Your task to perform on an android device: View the shopping cart on ebay. Search for acer nitro on ebay, select the first entry, add it to the cart, then select checkout. Image 0: 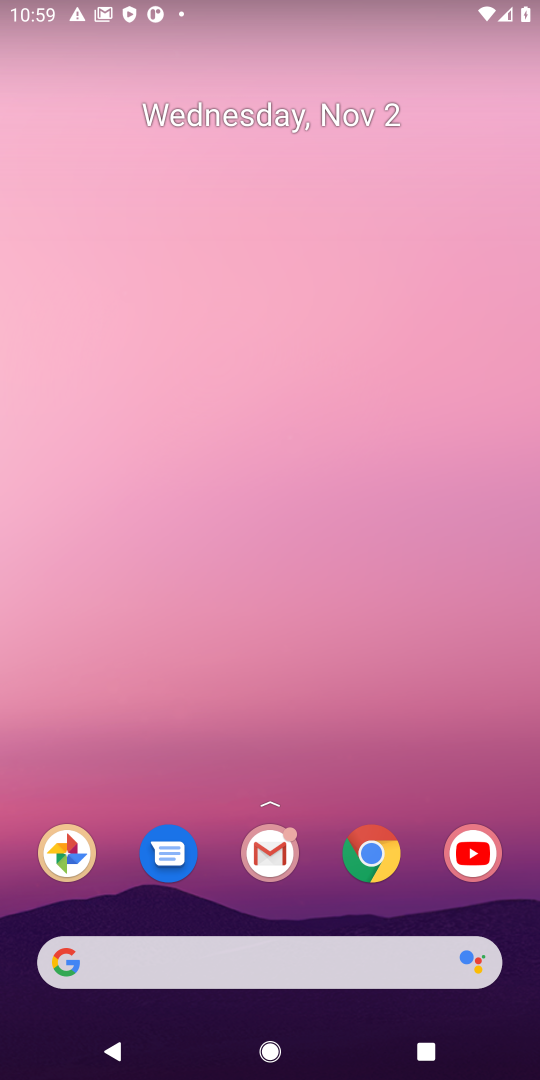
Step 0: click (367, 856)
Your task to perform on an android device: View the shopping cart on ebay. Search for acer nitro on ebay, select the first entry, add it to the cart, then select checkout. Image 1: 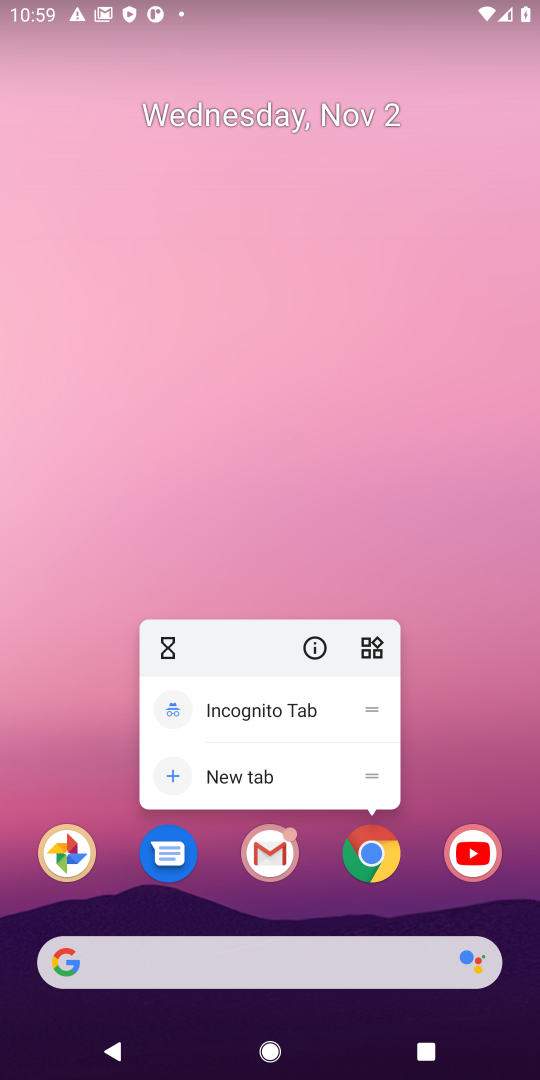
Step 1: click (367, 856)
Your task to perform on an android device: View the shopping cart on ebay. Search for acer nitro on ebay, select the first entry, add it to the cart, then select checkout. Image 2: 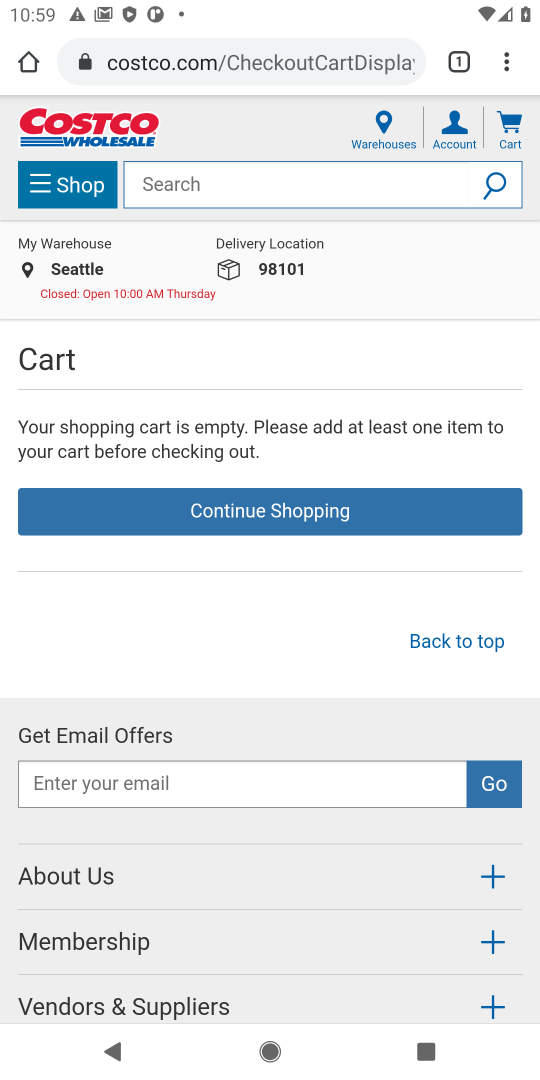
Step 2: click (210, 59)
Your task to perform on an android device: View the shopping cart on ebay. Search for acer nitro on ebay, select the first entry, add it to the cart, then select checkout. Image 3: 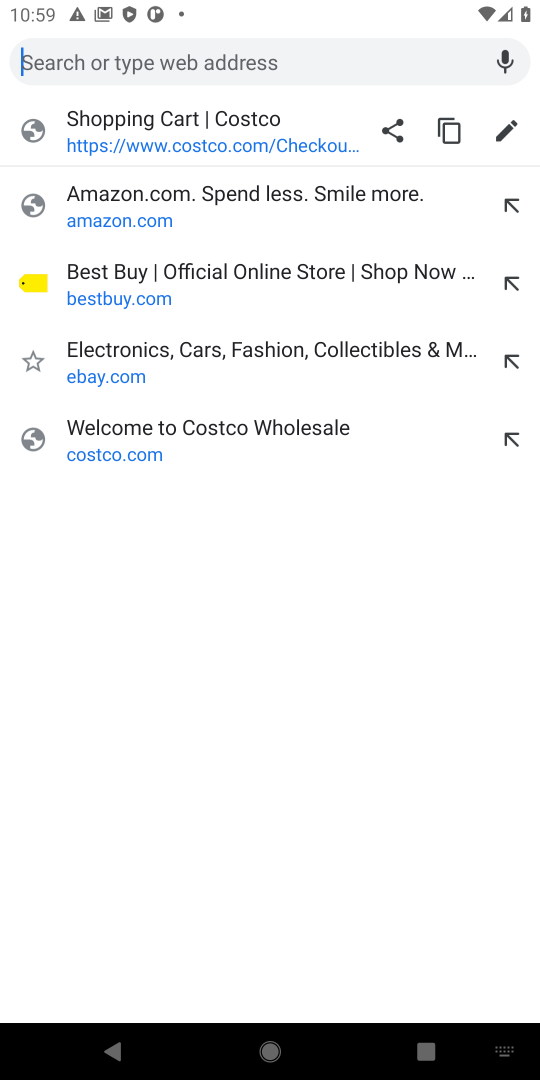
Step 3: type "ebay"
Your task to perform on an android device: View the shopping cart on ebay. Search for acer nitro on ebay, select the first entry, add it to the cart, then select checkout. Image 4: 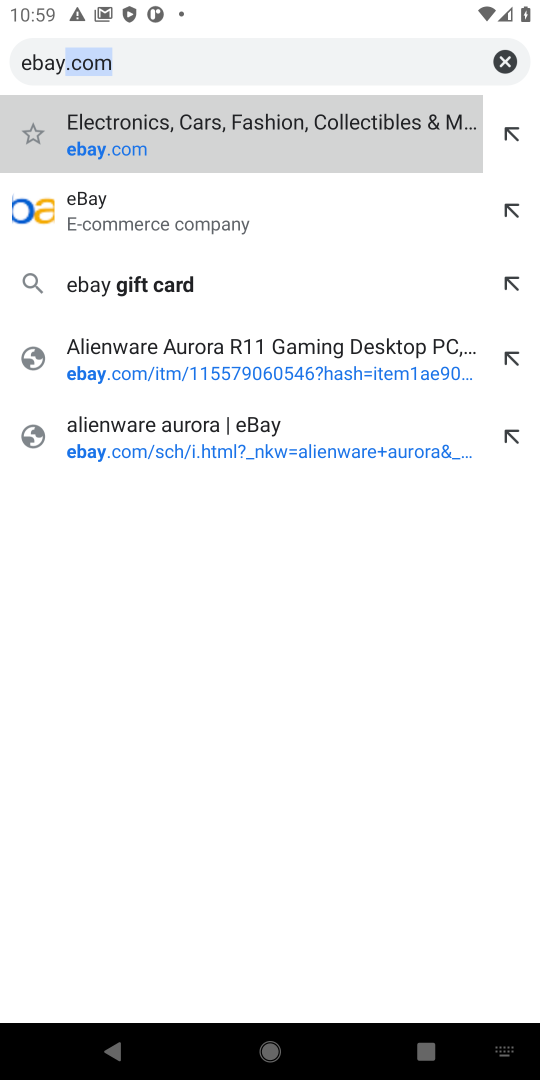
Step 4: press enter
Your task to perform on an android device: View the shopping cart on ebay. Search for acer nitro on ebay, select the first entry, add it to the cart, then select checkout. Image 5: 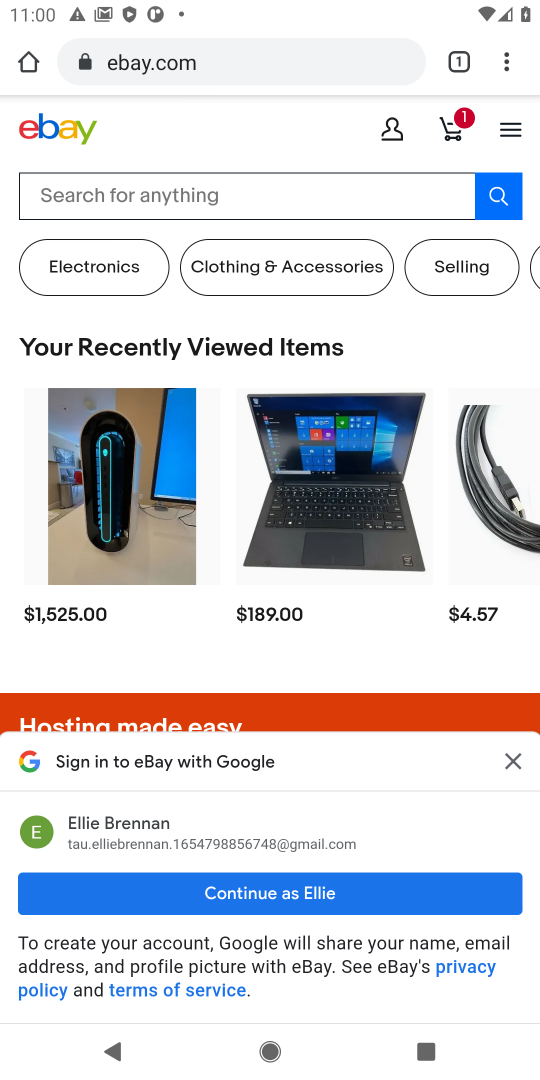
Step 5: click (377, 185)
Your task to perform on an android device: View the shopping cart on ebay. Search for acer nitro on ebay, select the first entry, add it to the cart, then select checkout. Image 6: 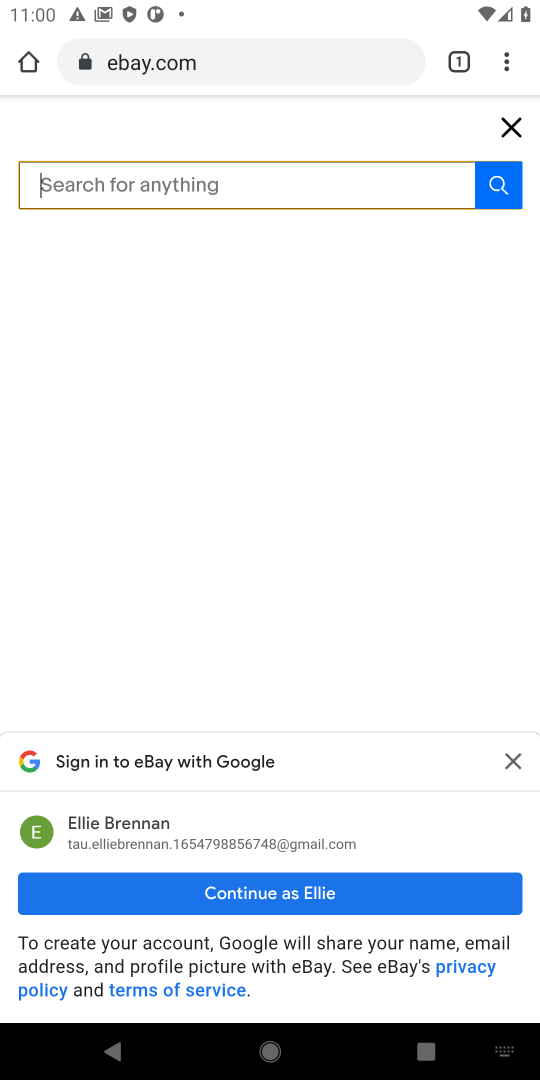
Step 6: type " acer nitro "
Your task to perform on an android device: View the shopping cart on ebay. Search for acer nitro on ebay, select the first entry, add it to the cart, then select checkout. Image 7: 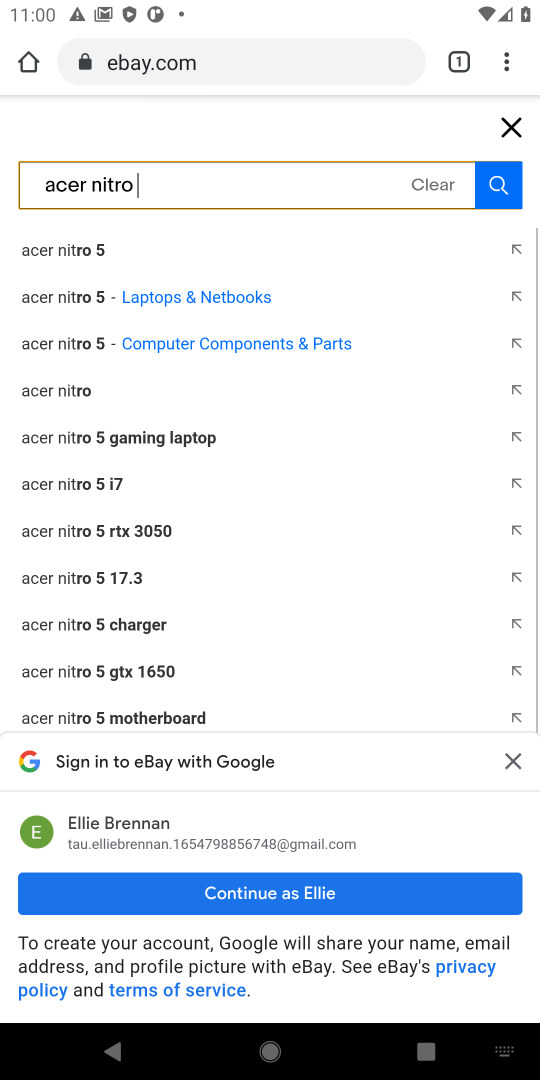
Step 7: press enter
Your task to perform on an android device: View the shopping cart on ebay. Search for acer nitro on ebay, select the first entry, add it to the cart, then select checkout. Image 8: 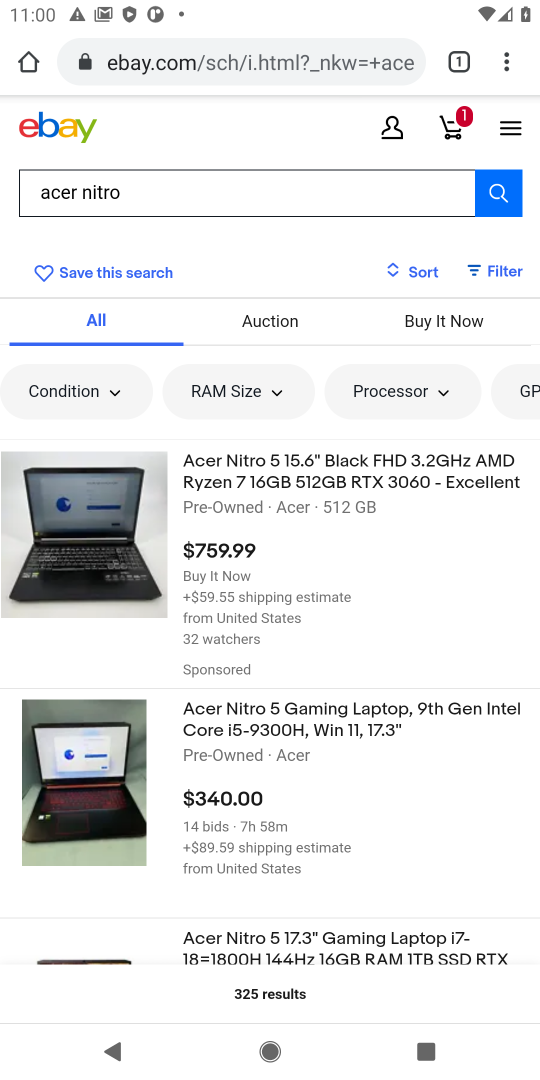
Step 8: click (226, 481)
Your task to perform on an android device: View the shopping cart on ebay. Search for acer nitro on ebay, select the first entry, add it to the cart, then select checkout. Image 9: 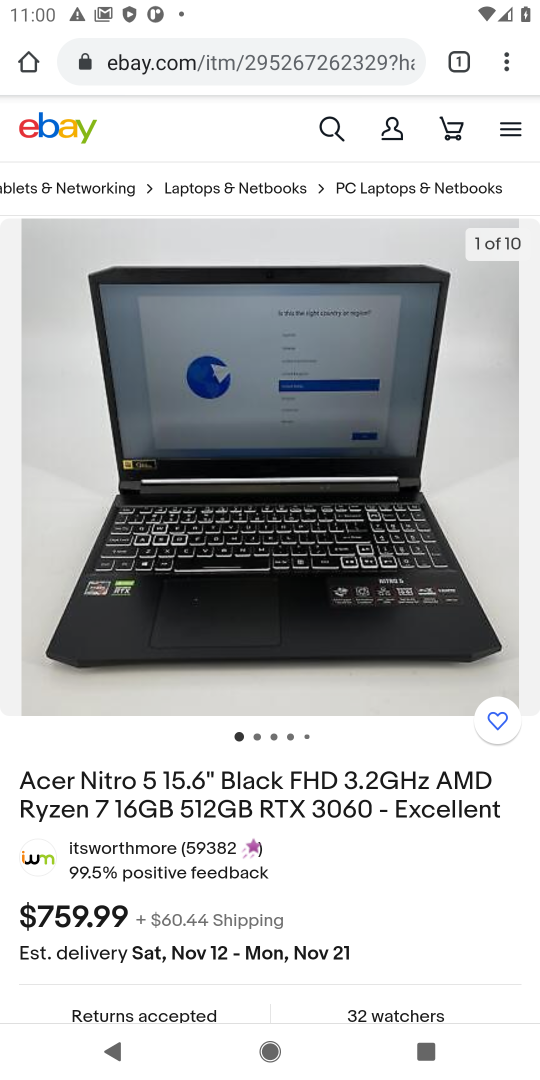
Step 9: drag from (378, 800) to (485, 345)
Your task to perform on an android device: View the shopping cart on ebay. Search for acer nitro on ebay, select the first entry, add it to the cart, then select checkout. Image 10: 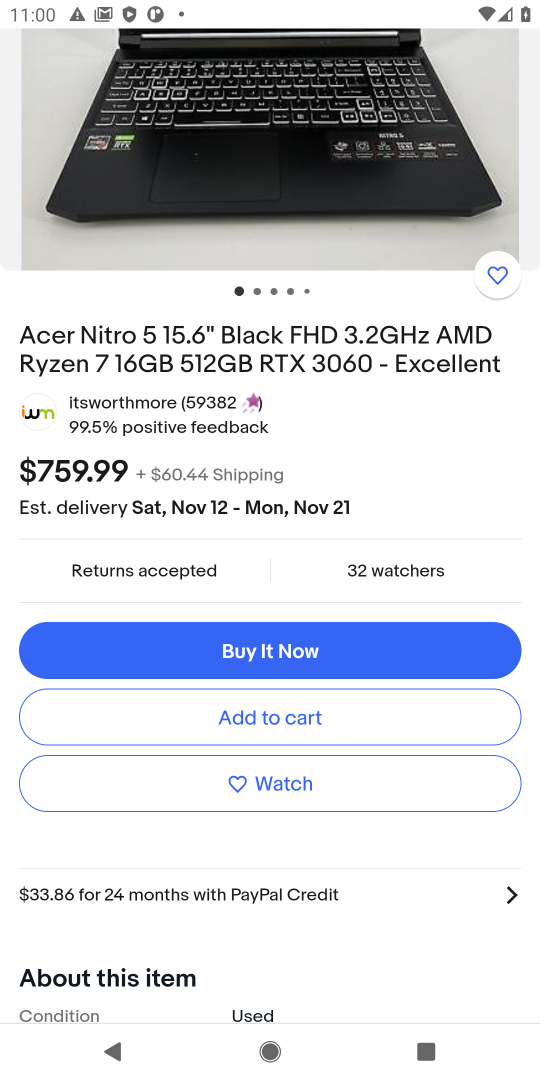
Step 10: click (293, 716)
Your task to perform on an android device: View the shopping cart on ebay. Search for acer nitro on ebay, select the first entry, add it to the cart, then select checkout. Image 11: 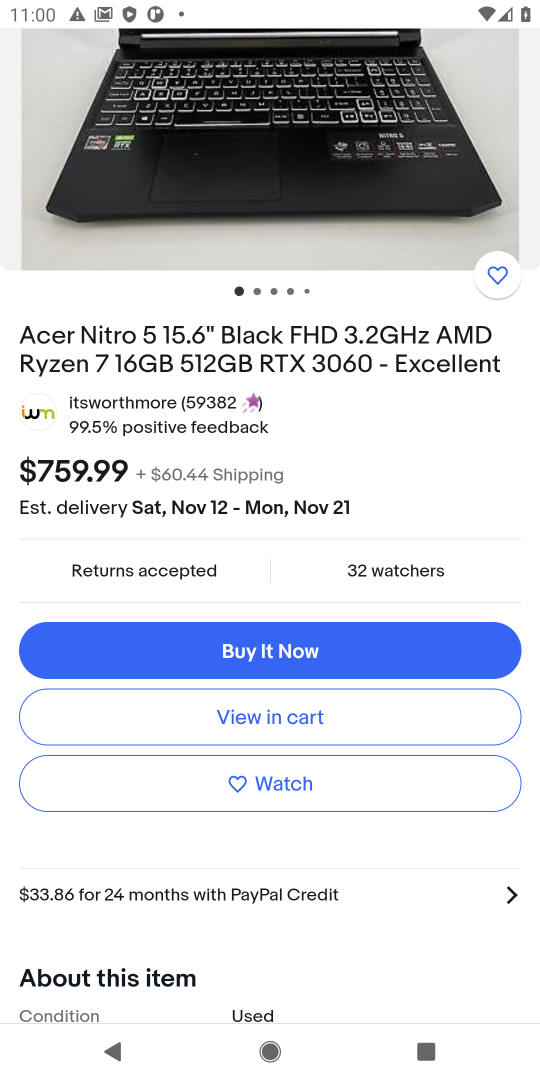
Step 11: click (293, 714)
Your task to perform on an android device: View the shopping cart on ebay. Search for acer nitro on ebay, select the first entry, add it to the cart, then select checkout. Image 12: 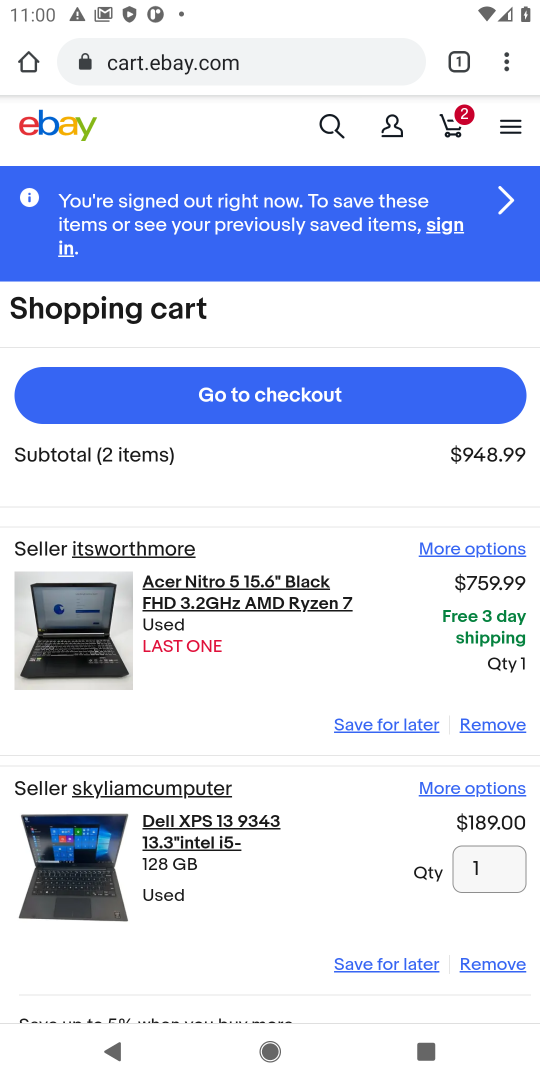
Step 12: click (485, 960)
Your task to perform on an android device: View the shopping cart on ebay. Search for acer nitro on ebay, select the first entry, add it to the cart, then select checkout. Image 13: 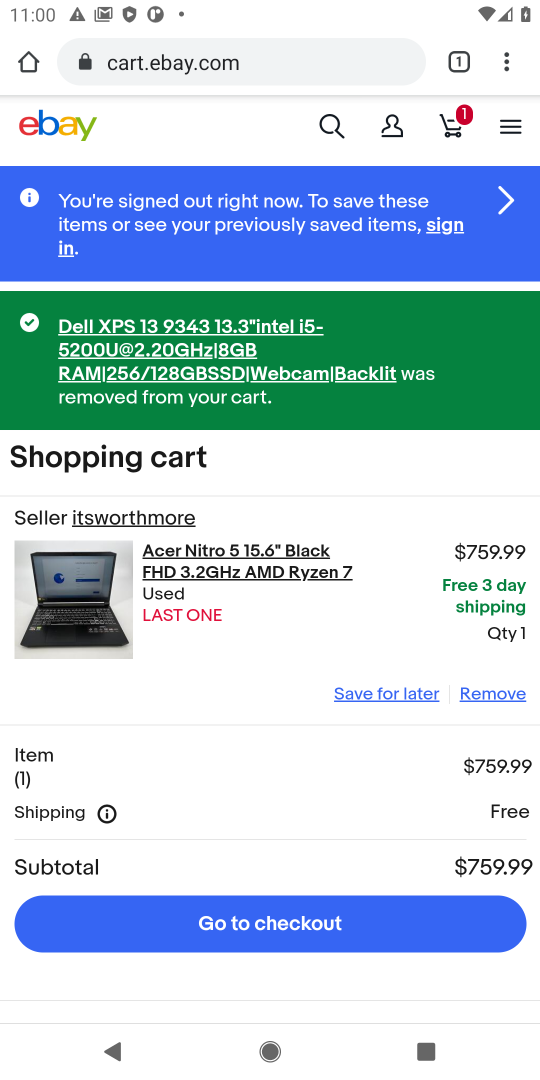
Step 13: click (263, 926)
Your task to perform on an android device: View the shopping cart on ebay. Search for acer nitro on ebay, select the first entry, add it to the cart, then select checkout. Image 14: 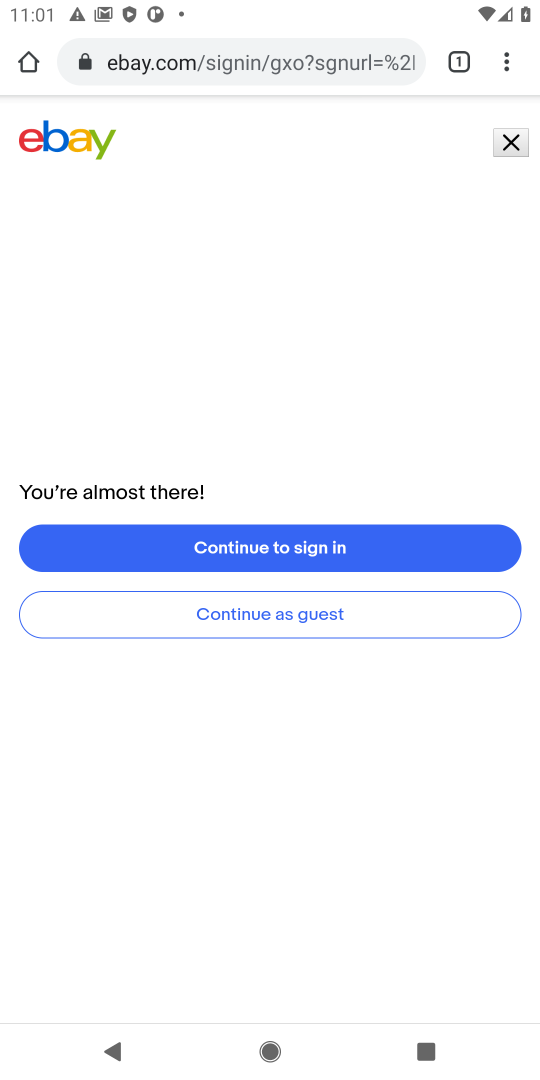
Step 14: task complete